Your task to perform on an android device: turn vacation reply on in the gmail app Image 0: 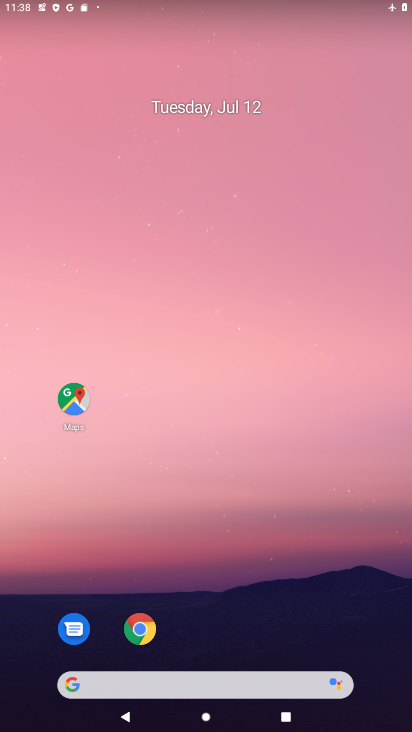
Step 0: drag from (234, 616) to (206, 138)
Your task to perform on an android device: turn vacation reply on in the gmail app Image 1: 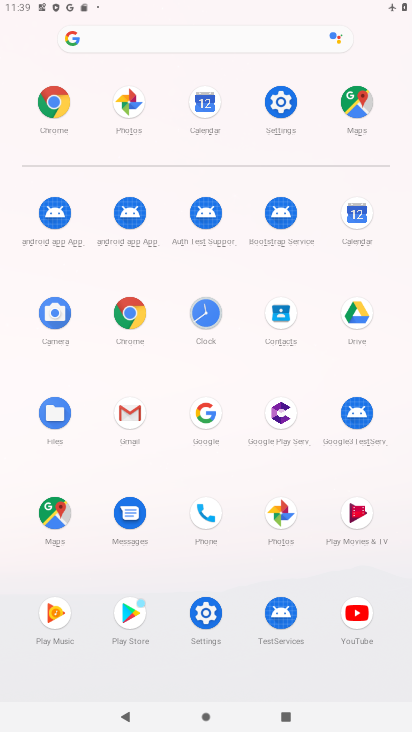
Step 1: click (128, 419)
Your task to perform on an android device: turn vacation reply on in the gmail app Image 2: 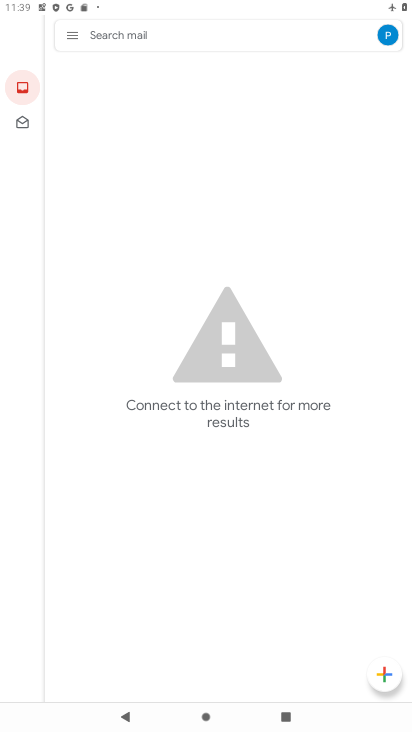
Step 2: click (69, 27)
Your task to perform on an android device: turn vacation reply on in the gmail app Image 3: 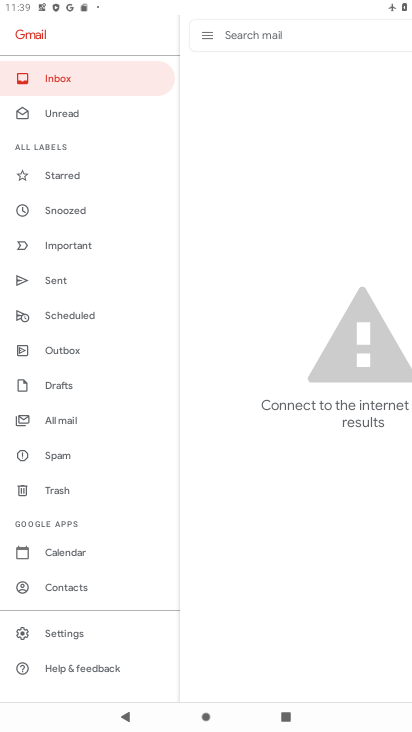
Step 3: click (73, 630)
Your task to perform on an android device: turn vacation reply on in the gmail app Image 4: 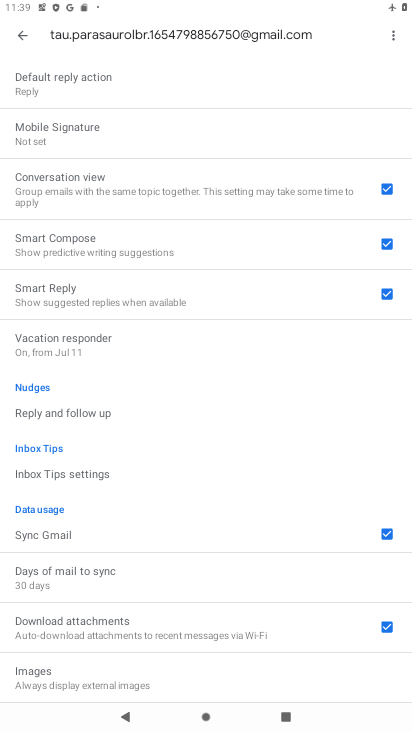
Step 4: drag from (185, 653) to (193, 279)
Your task to perform on an android device: turn vacation reply on in the gmail app Image 5: 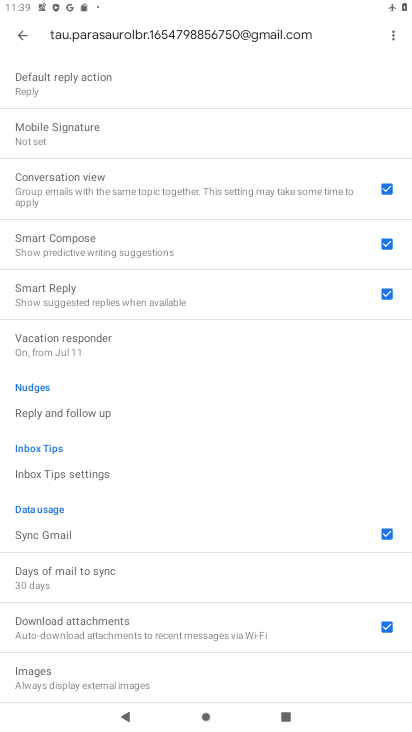
Step 5: click (150, 343)
Your task to perform on an android device: turn vacation reply on in the gmail app Image 6: 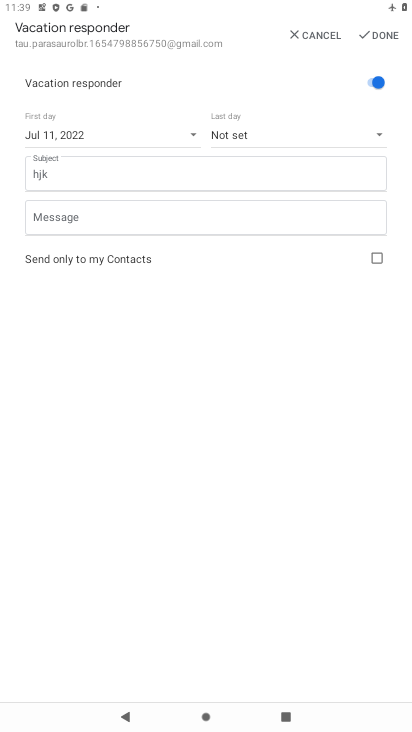
Step 6: task complete